Your task to perform on an android device: turn on the 24-hour format for clock Image 0: 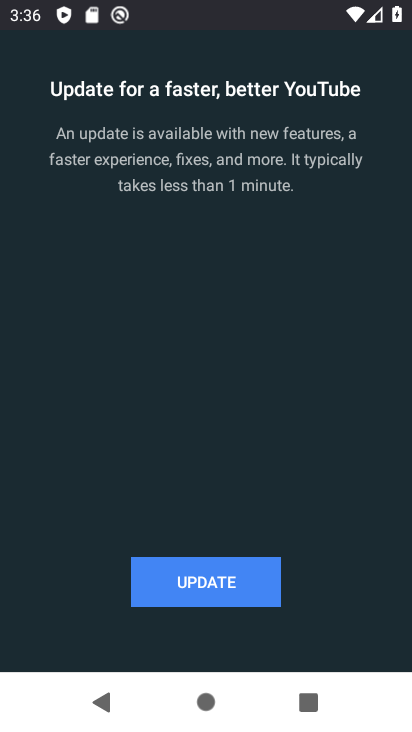
Step 0: press back button
Your task to perform on an android device: turn on the 24-hour format for clock Image 1: 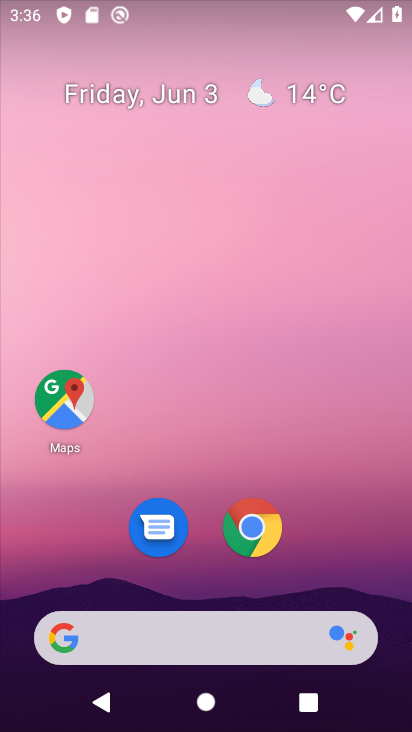
Step 1: drag from (319, 555) to (234, 30)
Your task to perform on an android device: turn on the 24-hour format for clock Image 2: 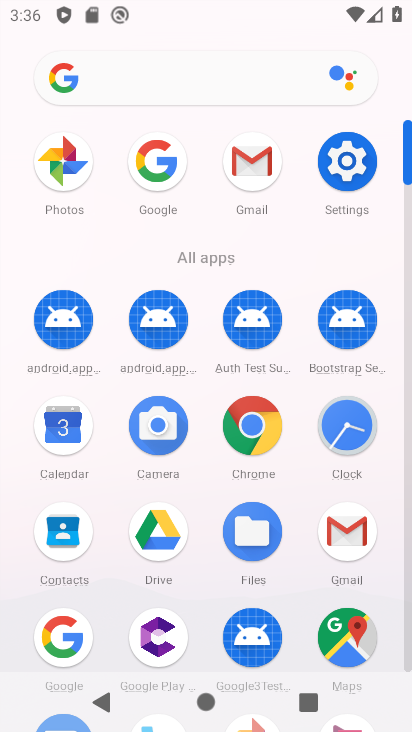
Step 2: click (348, 425)
Your task to perform on an android device: turn on the 24-hour format for clock Image 3: 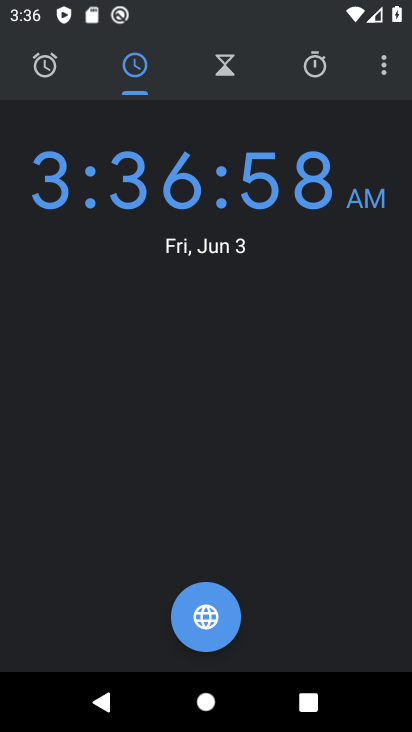
Step 3: click (387, 63)
Your task to perform on an android device: turn on the 24-hour format for clock Image 4: 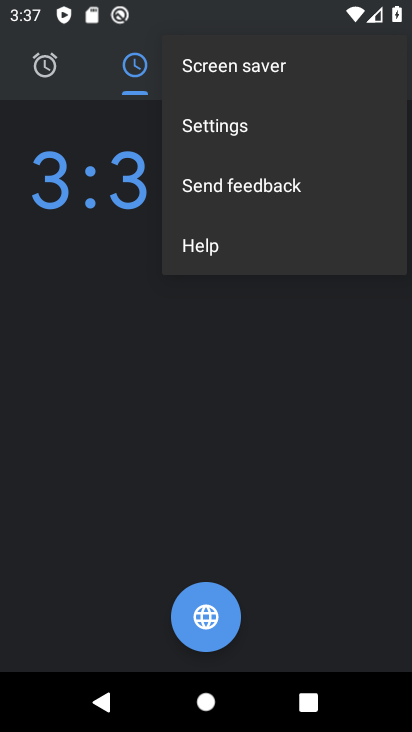
Step 4: click (229, 124)
Your task to perform on an android device: turn on the 24-hour format for clock Image 5: 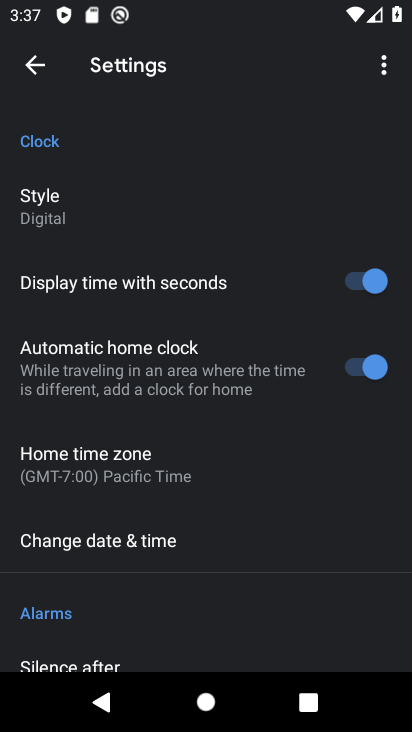
Step 5: click (157, 543)
Your task to perform on an android device: turn on the 24-hour format for clock Image 6: 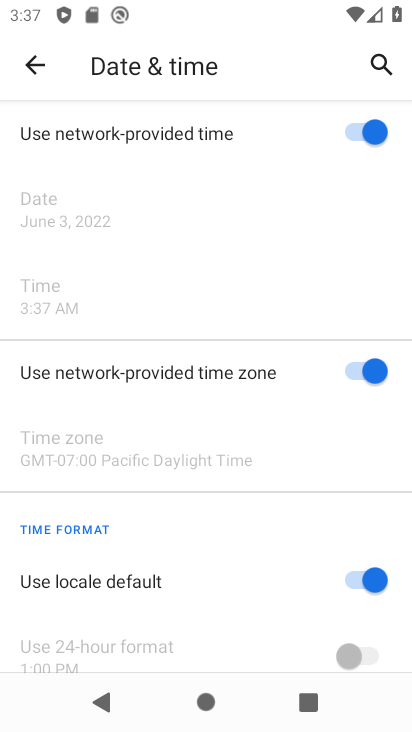
Step 6: click (365, 652)
Your task to perform on an android device: turn on the 24-hour format for clock Image 7: 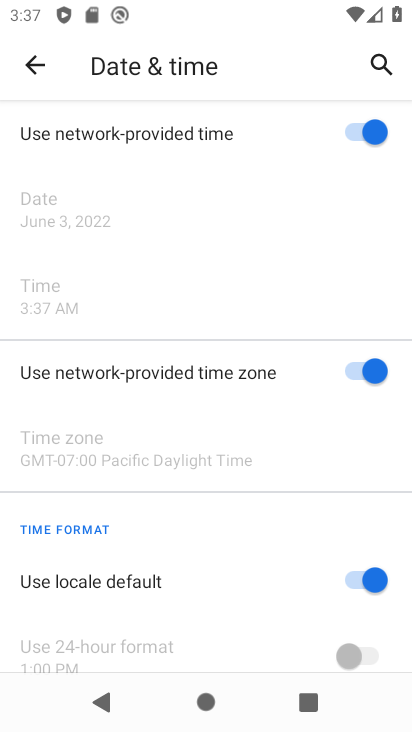
Step 7: click (352, 580)
Your task to perform on an android device: turn on the 24-hour format for clock Image 8: 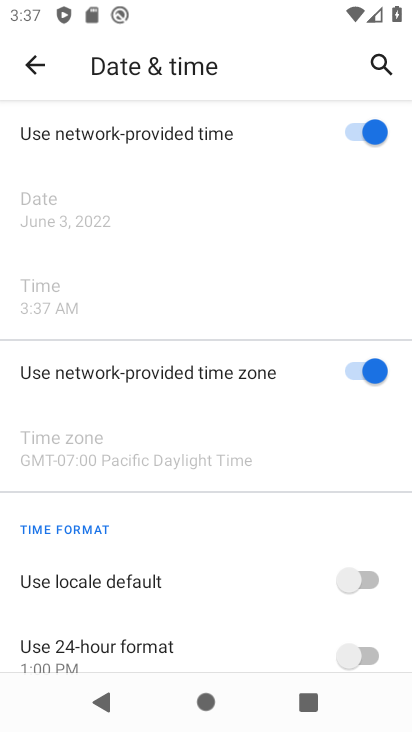
Step 8: click (375, 650)
Your task to perform on an android device: turn on the 24-hour format for clock Image 9: 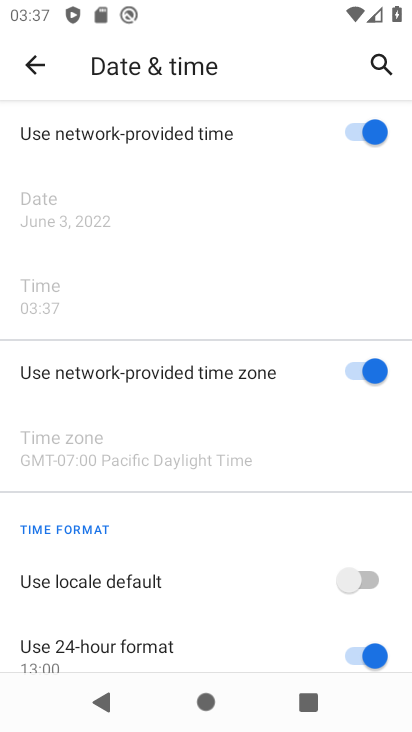
Step 9: task complete